Your task to perform on an android device: See recent photos Image 0: 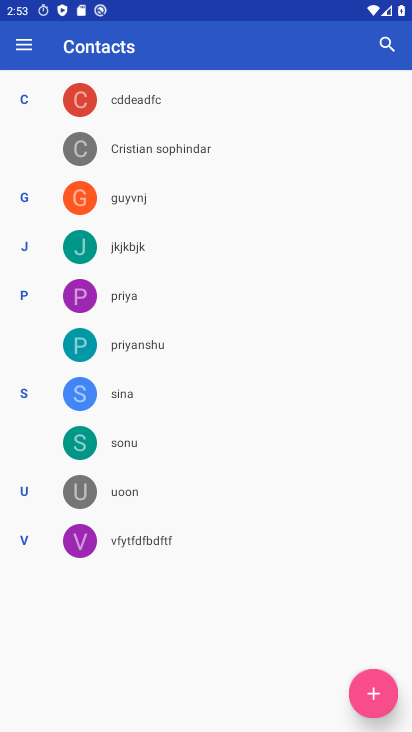
Step 0: press home button
Your task to perform on an android device: See recent photos Image 1: 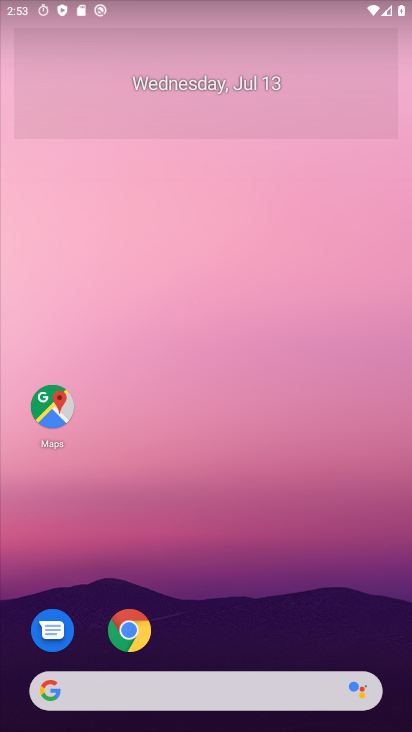
Step 1: drag from (23, 692) to (183, 274)
Your task to perform on an android device: See recent photos Image 2: 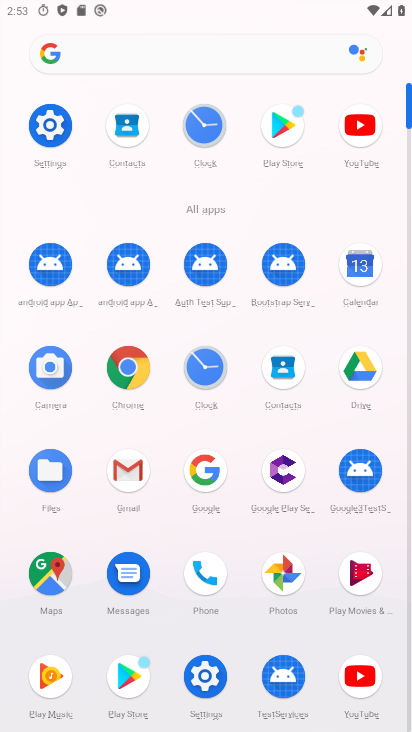
Step 2: click (276, 565)
Your task to perform on an android device: See recent photos Image 3: 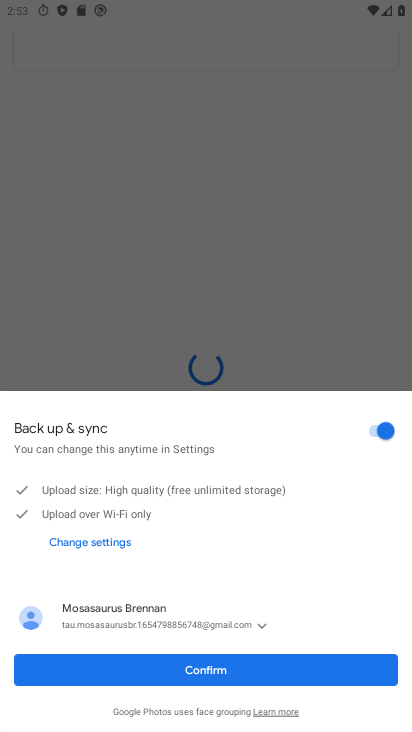
Step 3: click (156, 670)
Your task to perform on an android device: See recent photos Image 4: 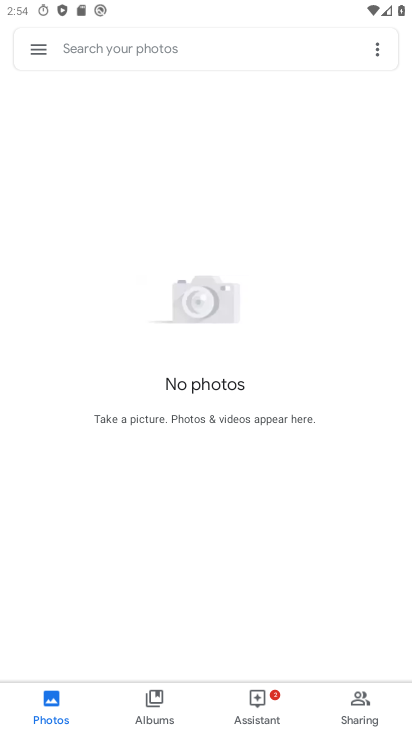
Step 4: task complete